Your task to perform on an android device: Open the map Image 0: 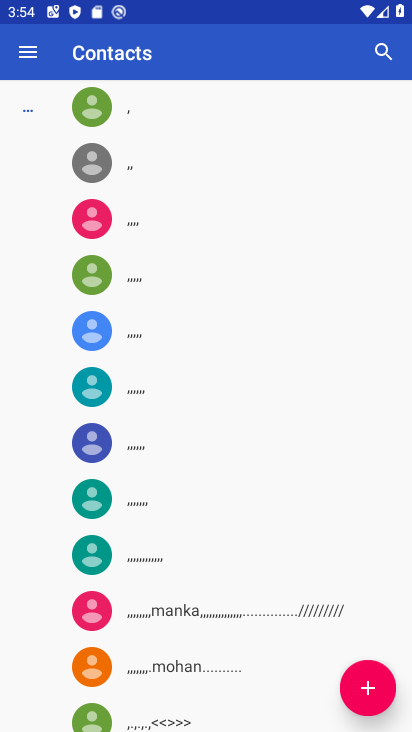
Step 0: press home button
Your task to perform on an android device: Open the map Image 1: 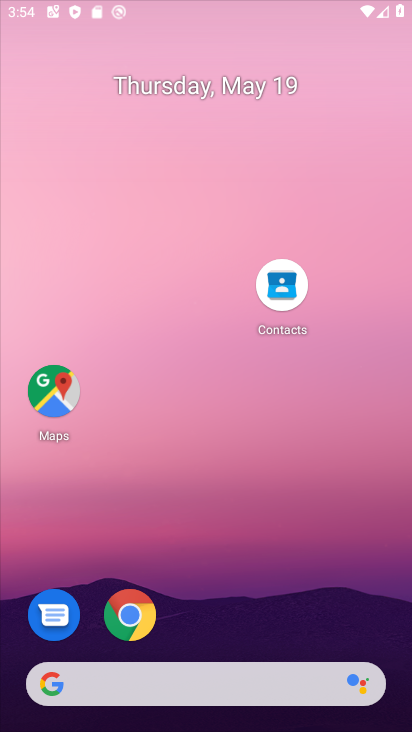
Step 1: drag from (165, 620) to (235, 183)
Your task to perform on an android device: Open the map Image 2: 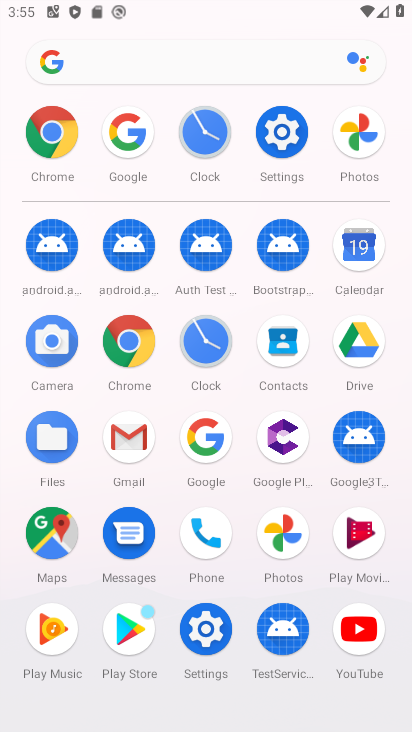
Step 2: click (45, 537)
Your task to perform on an android device: Open the map Image 3: 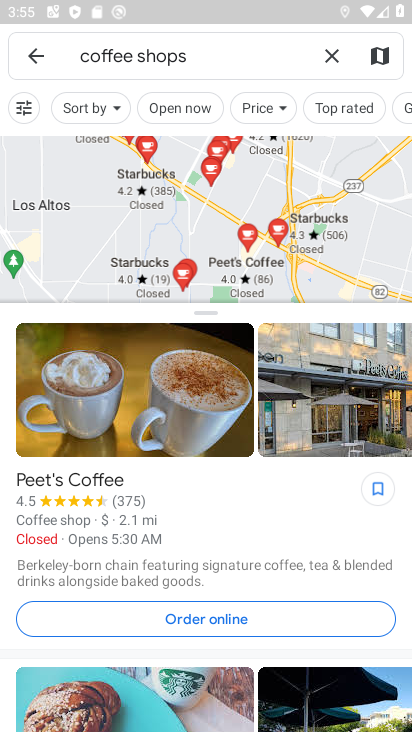
Step 3: task complete